Your task to perform on an android device: open a bookmark in the chrome app Image 0: 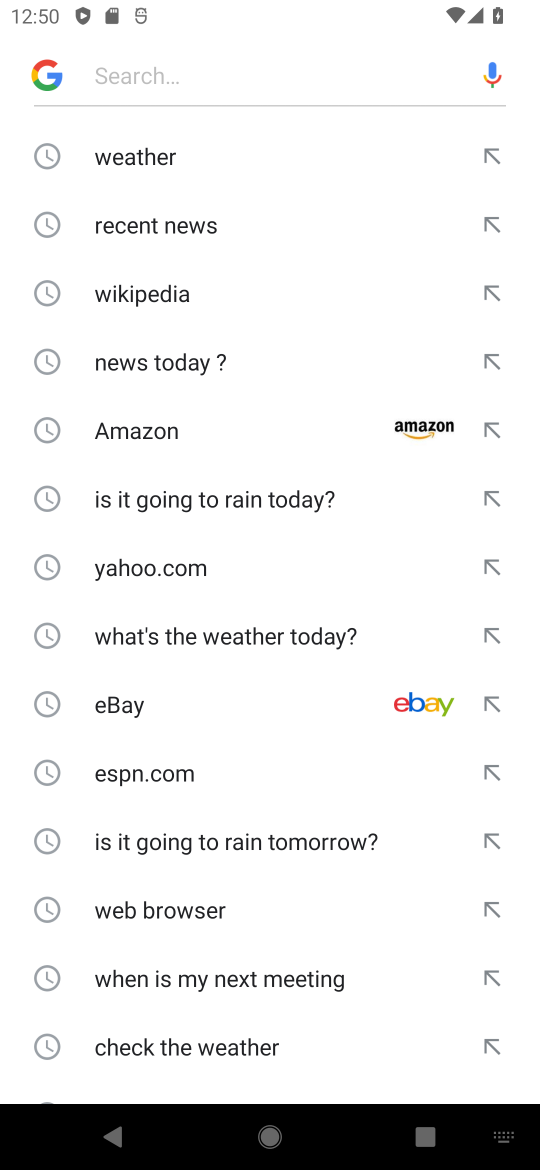
Step 0: press back button
Your task to perform on an android device: open a bookmark in the chrome app Image 1: 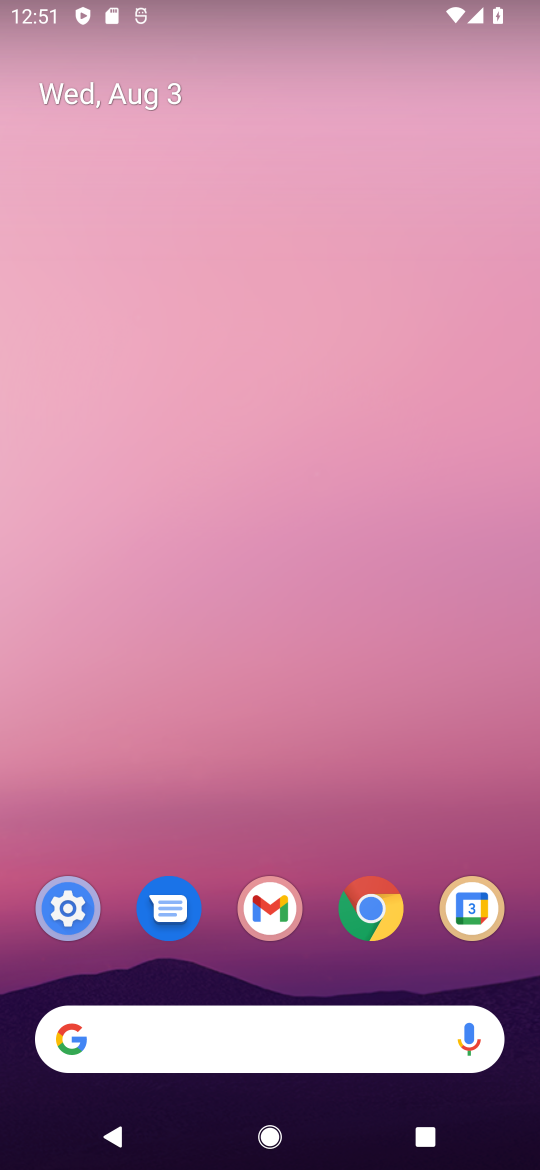
Step 1: click (366, 910)
Your task to perform on an android device: open a bookmark in the chrome app Image 2: 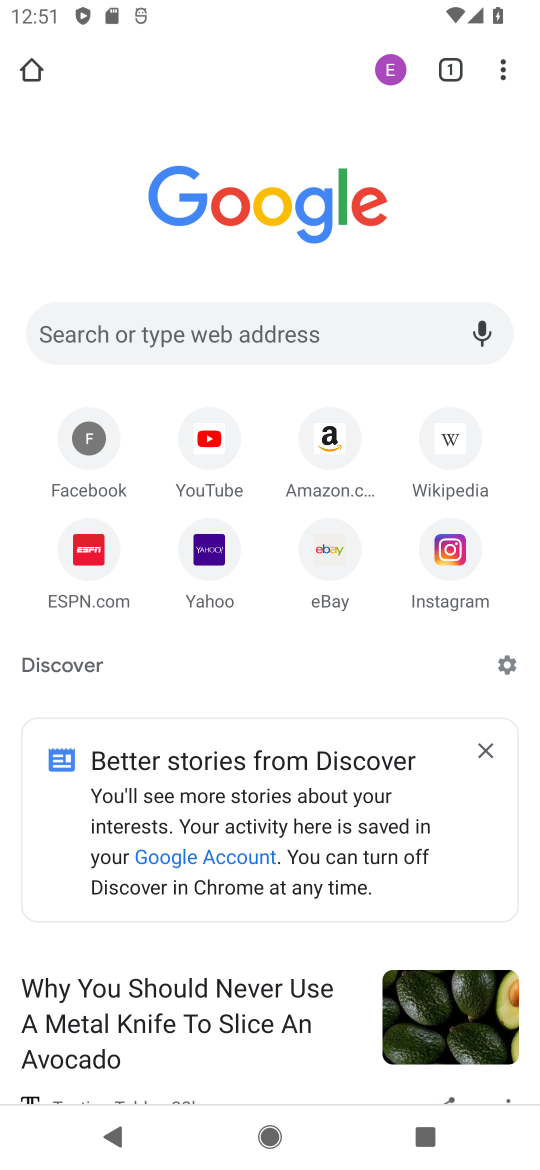
Step 2: click (498, 75)
Your task to perform on an android device: open a bookmark in the chrome app Image 3: 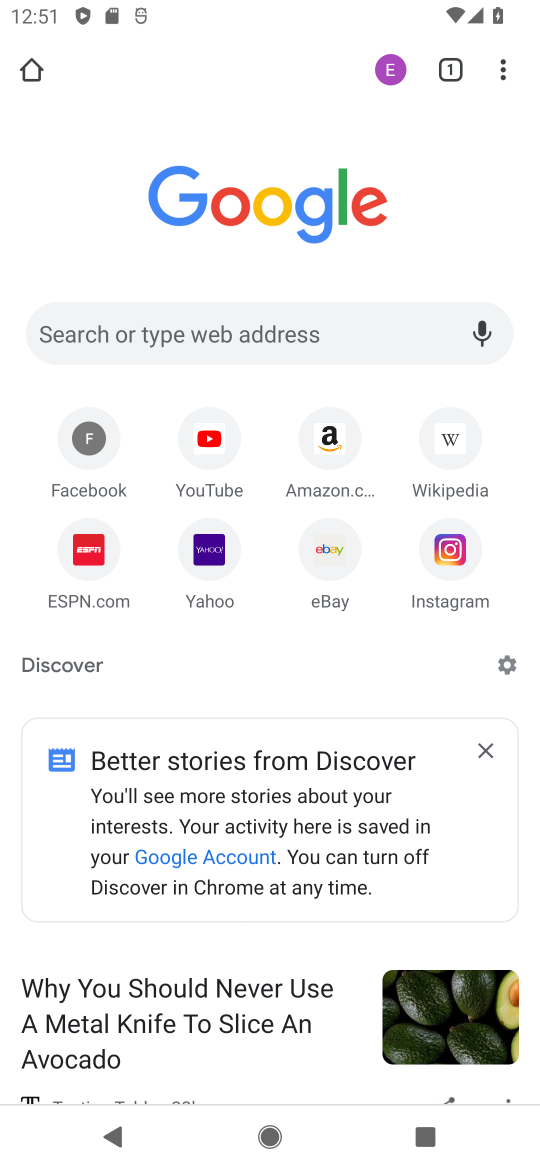
Step 3: click (504, 75)
Your task to perform on an android device: open a bookmark in the chrome app Image 4: 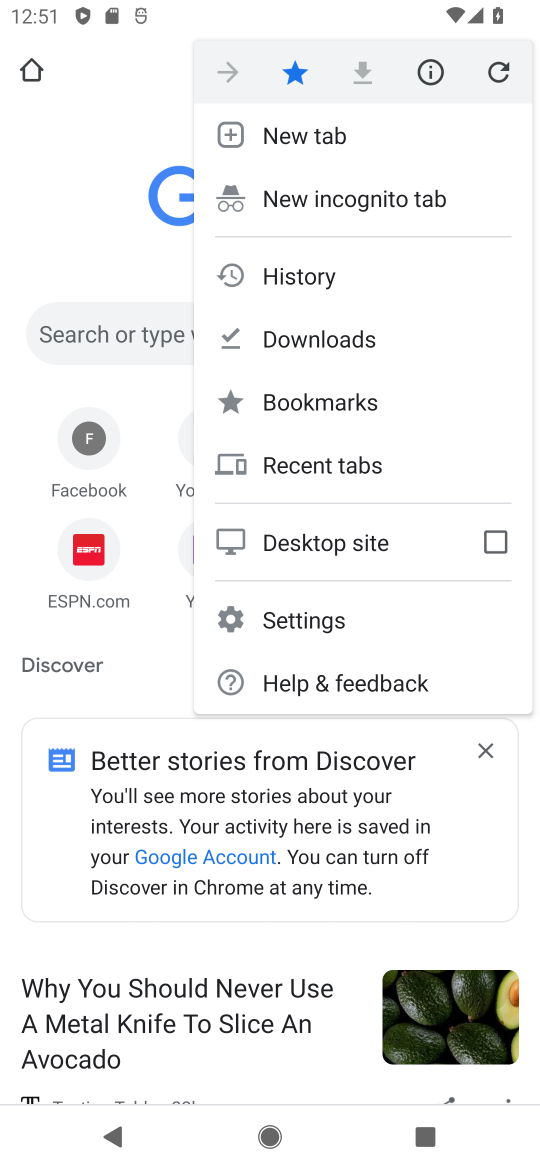
Step 4: click (311, 398)
Your task to perform on an android device: open a bookmark in the chrome app Image 5: 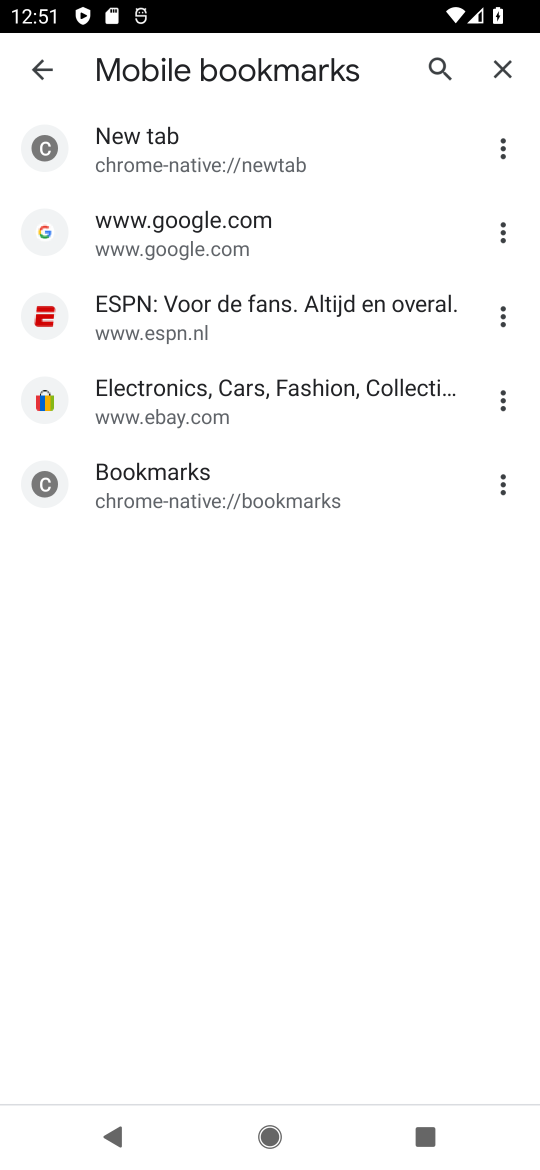
Step 5: click (226, 250)
Your task to perform on an android device: open a bookmark in the chrome app Image 6: 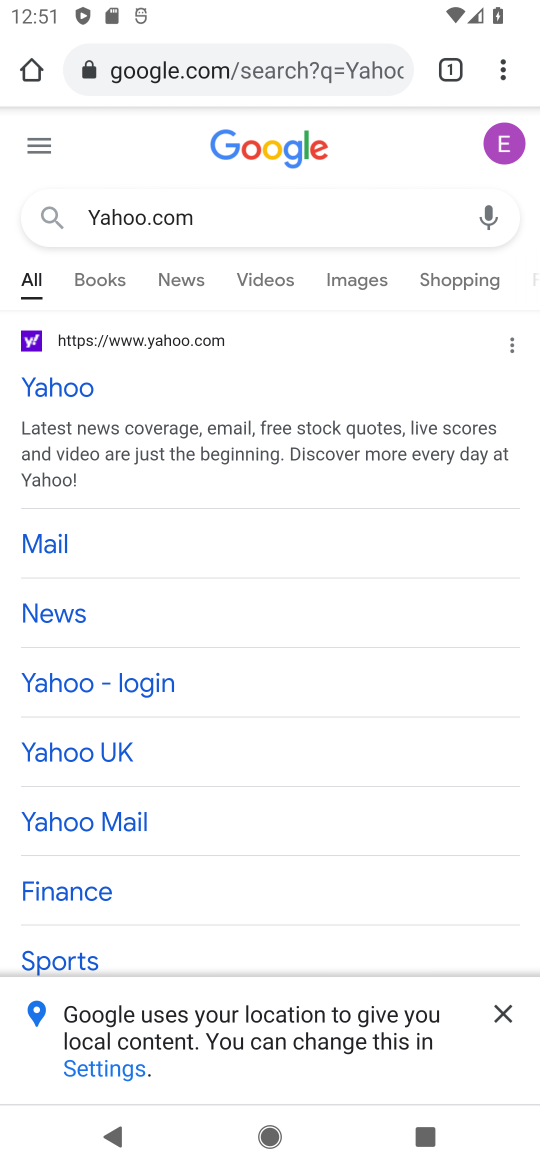
Step 6: task complete